Your task to perform on an android device: open app "Paramount+ | Peak Streaming" (install if not already installed) and go to login screen Image 0: 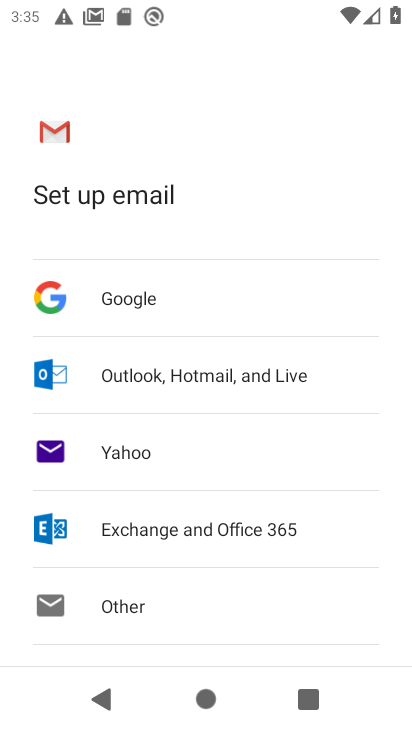
Step 0: press home button
Your task to perform on an android device: open app "Paramount+ | Peak Streaming" (install if not already installed) and go to login screen Image 1: 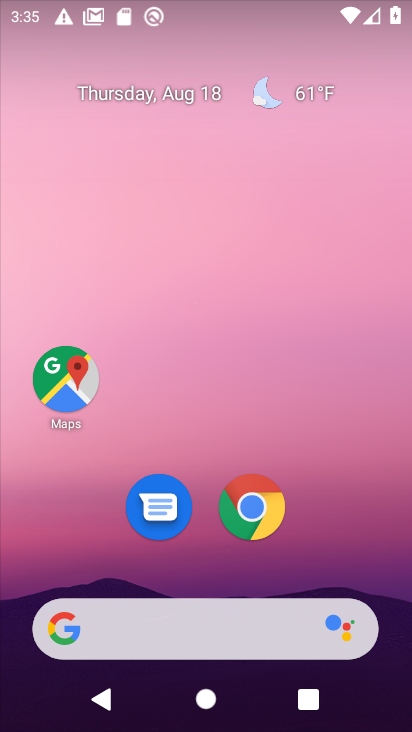
Step 1: drag from (119, 576) to (215, 32)
Your task to perform on an android device: open app "Paramount+ | Peak Streaming" (install if not already installed) and go to login screen Image 2: 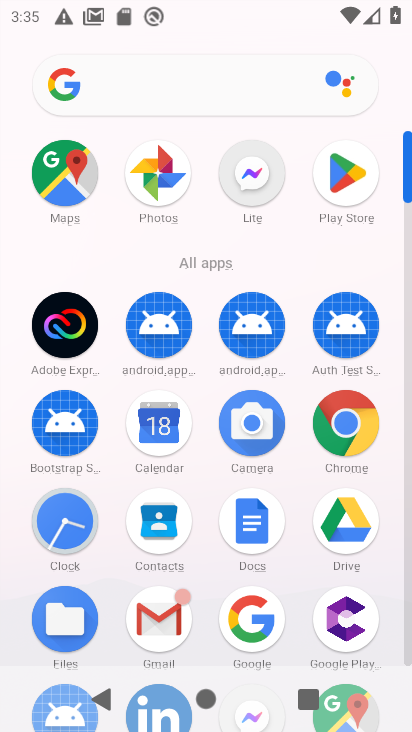
Step 2: click (361, 177)
Your task to perform on an android device: open app "Paramount+ | Peak Streaming" (install if not already installed) and go to login screen Image 3: 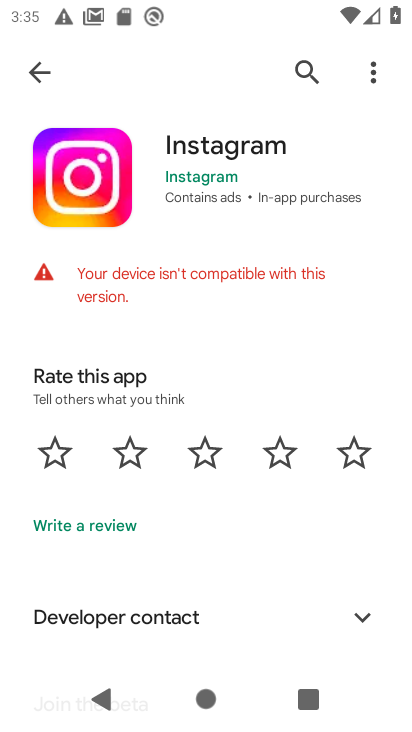
Step 3: click (300, 57)
Your task to perform on an android device: open app "Paramount+ | Peak Streaming" (install if not already installed) and go to login screen Image 4: 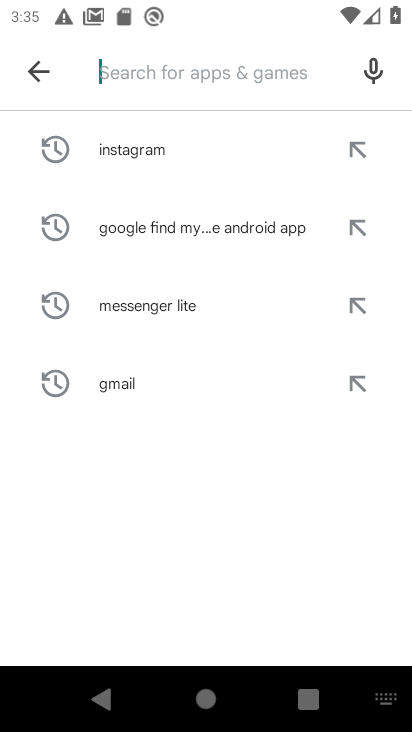
Step 4: click (120, 65)
Your task to perform on an android device: open app "Paramount+ | Peak Streaming" (install if not already installed) and go to login screen Image 5: 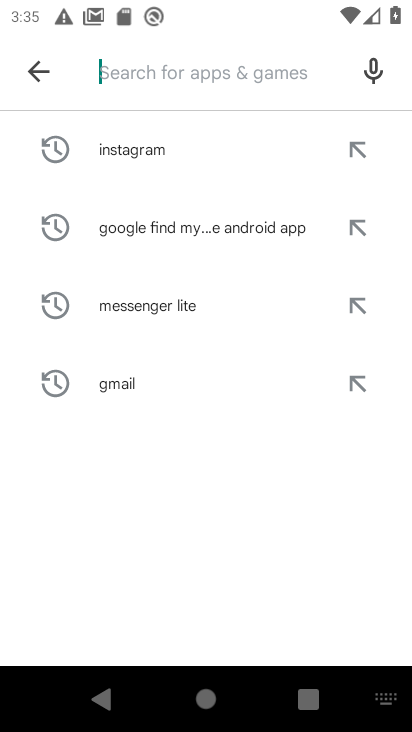
Step 5: type "Paramount"
Your task to perform on an android device: open app "Paramount+ | Peak Streaming" (install if not already installed) and go to login screen Image 6: 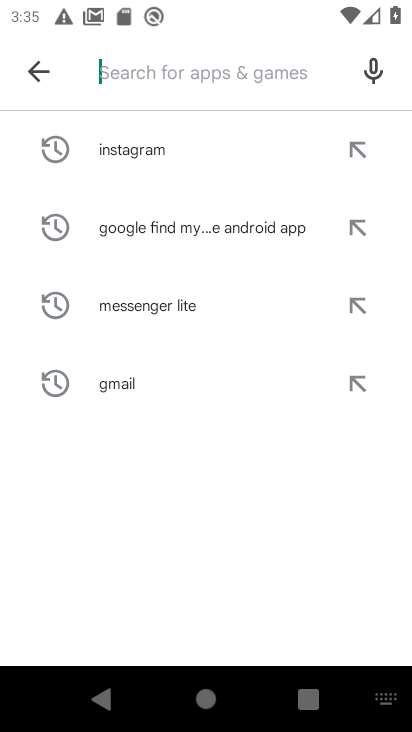
Step 6: click (178, 478)
Your task to perform on an android device: open app "Paramount+ | Peak Streaming" (install if not already installed) and go to login screen Image 7: 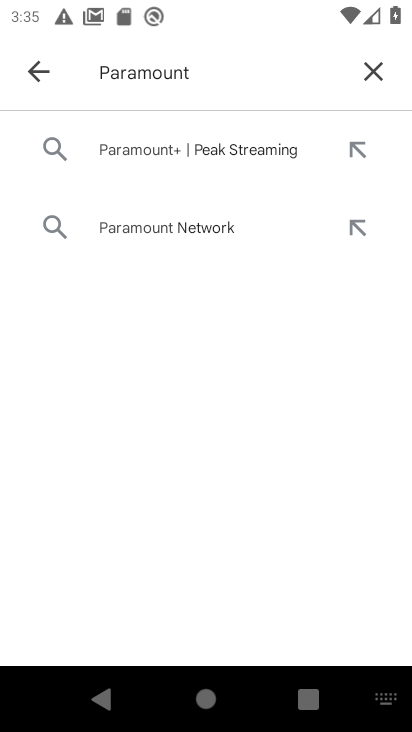
Step 7: click (190, 143)
Your task to perform on an android device: open app "Paramount+ | Peak Streaming" (install if not already installed) and go to login screen Image 8: 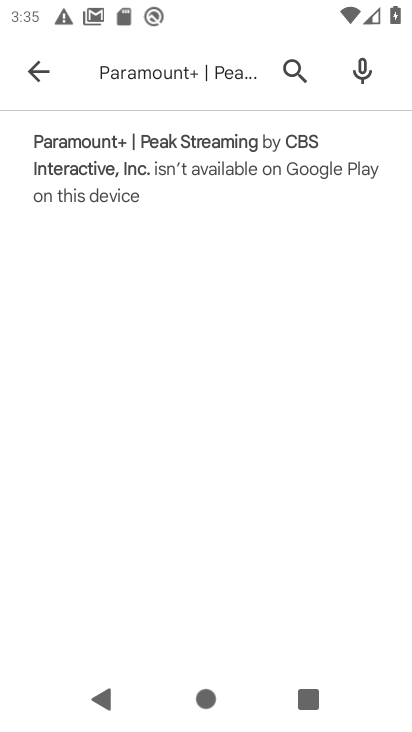
Step 8: click (160, 154)
Your task to perform on an android device: open app "Paramount+ | Peak Streaming" (install if not already installed) and go to login screen Image 9: 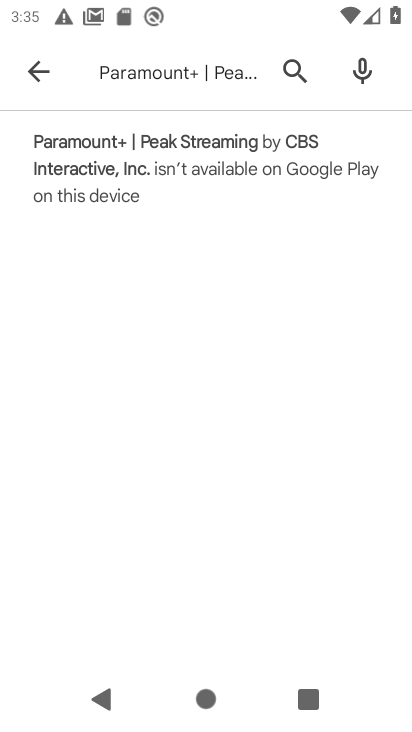
Step 9: task complete